Your task to perform on an android device: set the timer Image 0: 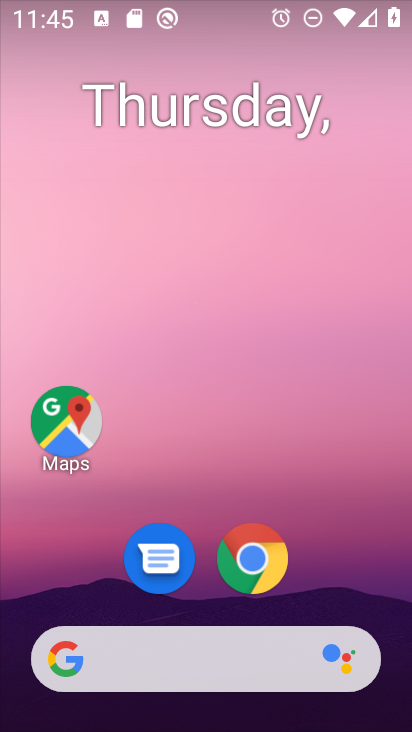
Step 0: drag from (388, 626) to (343, 134)
Your task to perform on an android device: set the timer Image 1: 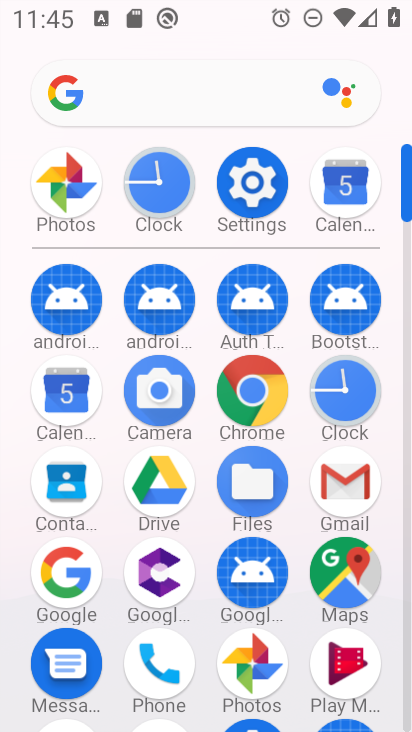
Step 1: click (340, 391)
Your task to perform on an android device: set the timer Image 2: 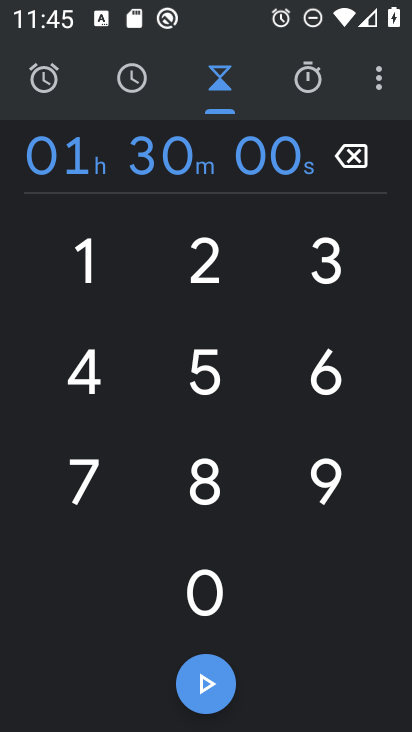
Step 2: task complete